Your task to perform on an android device: Open Chrome and go to settings Image 0: 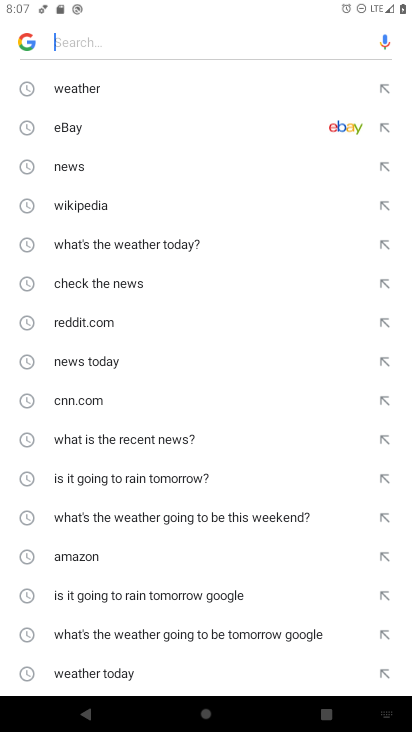
Step 0: press back button
Your task to perform on an android device: Open Chrome and go to settings Image 1: 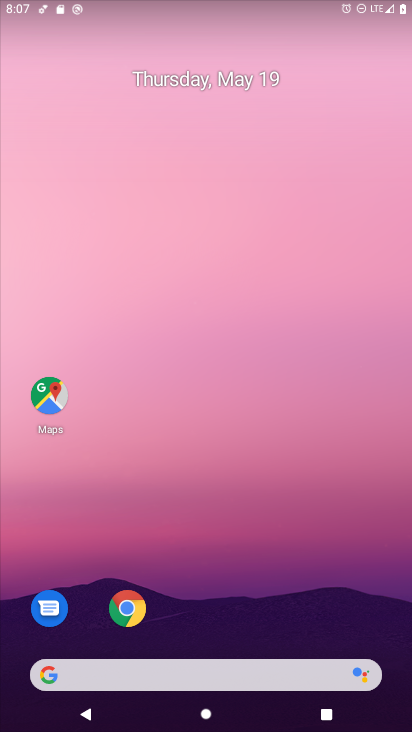
Step 1: click (125, 604)
Your task to perform on an android device: Open Chrome and go to settings Image 2: 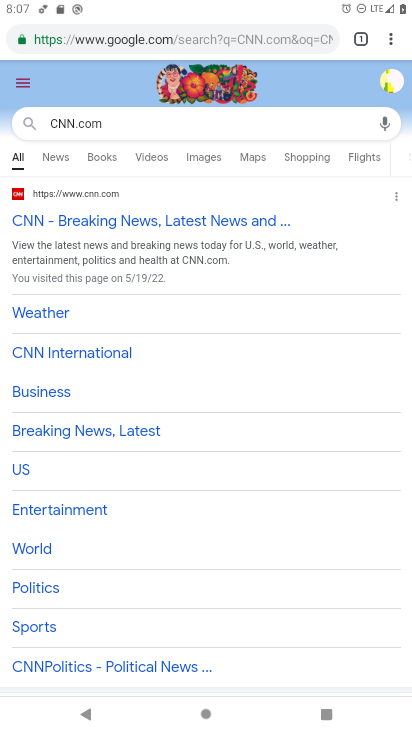
Step 2: click (389, 40)
Your task to perform on an android device: Open Chrome and go to settings Image 3: 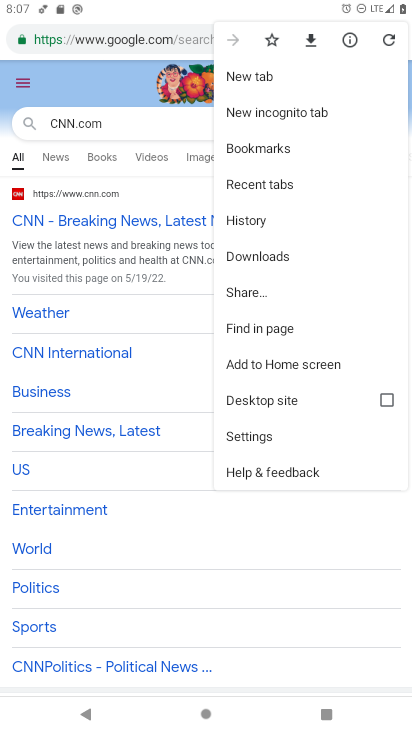
Step 3: click (229, 431)
Your task to perform on an android device: Open Chrome and go to settings Image 4: 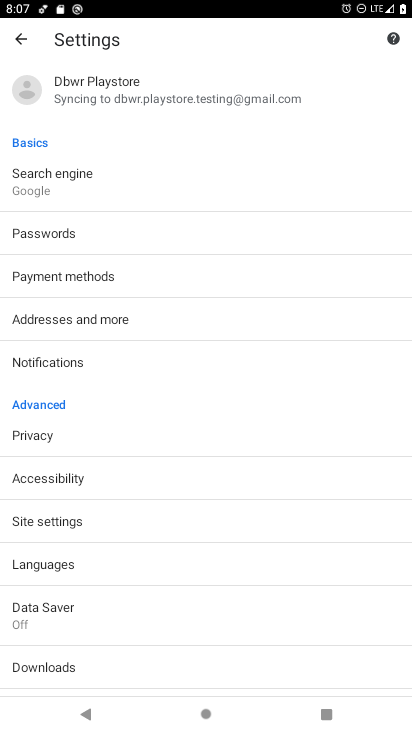
Step 4: task complete